Your task to perform on an android device: Search for Italian restaurants on Maps Image 0: 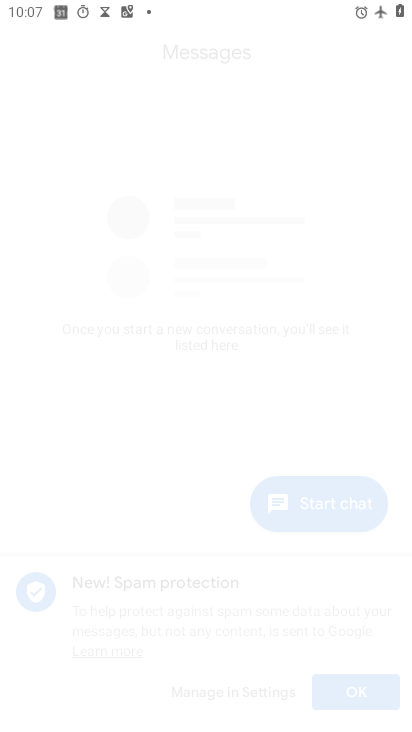
Step 0: drag from (260, 573) to (327, 62)
Your task to perform on an android device: Search for Italian restaurants on Maps Image 1: 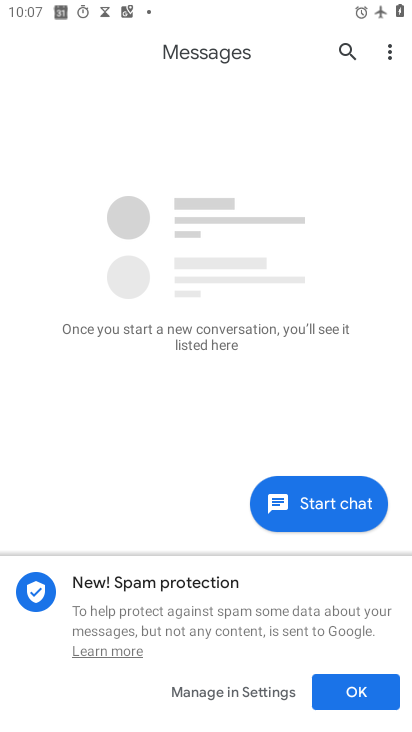
Step 1: press home button
Your task to perform on an android device: Search for Italian restaurants on Maps Image 2: 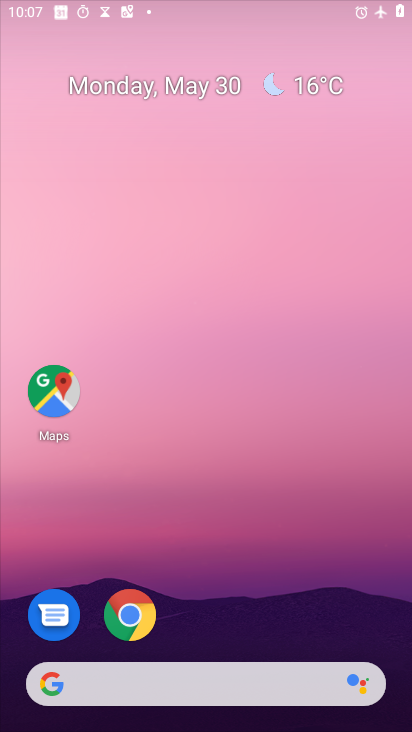
Step 2: drag from (278, 545) to (224, 29)
Your task to perform on an android device: Search for Italian restaurants on Maps Image 3: 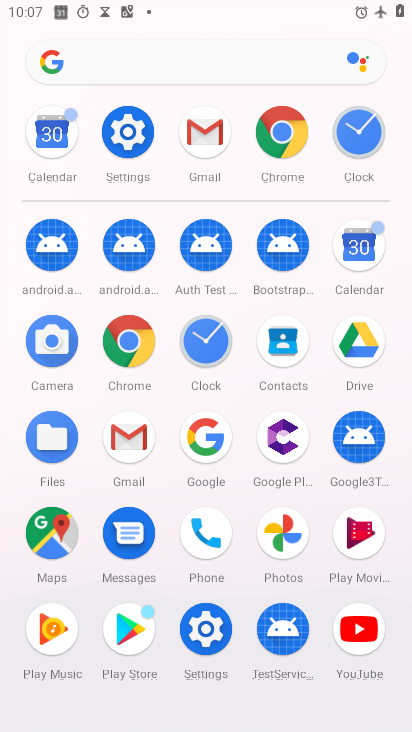
Step 3: click (59, 541)
Your task to perform on an android device: Search for Italian restaurants on Maps Image 4: 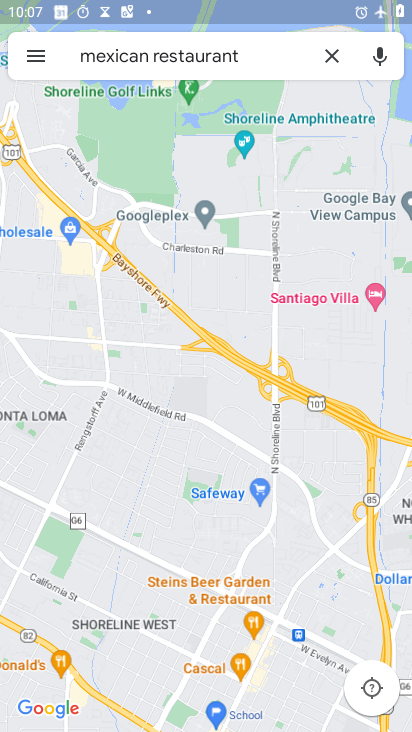
Step 4: click (336, 49)
Your task to perform on an android device: Search for Italian restaurants on Maps Image 5: 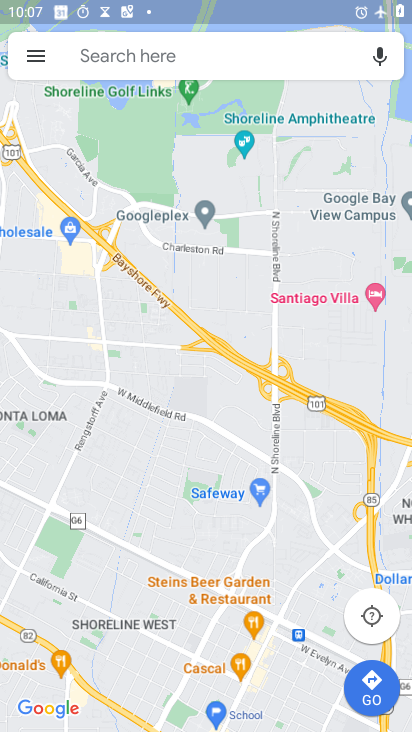
Step 5: click (175, 57)
Your task to perform on an android device: Search for Italian restaurants on Maps Image 6: 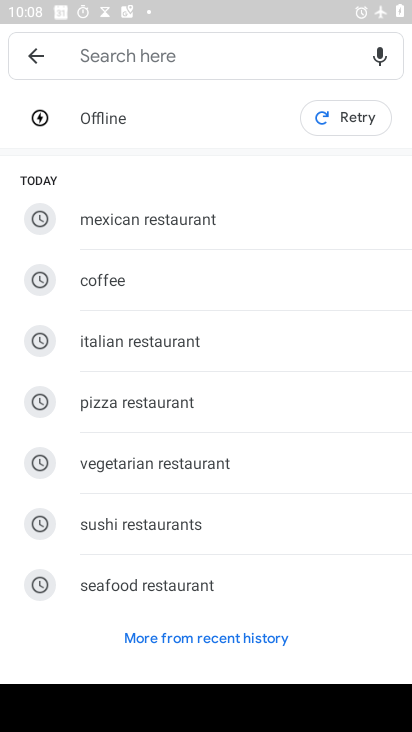
Step 6: click (227, 344)
Your task to perform on an android device: Search for Italian restaurants on Maps Image 7: 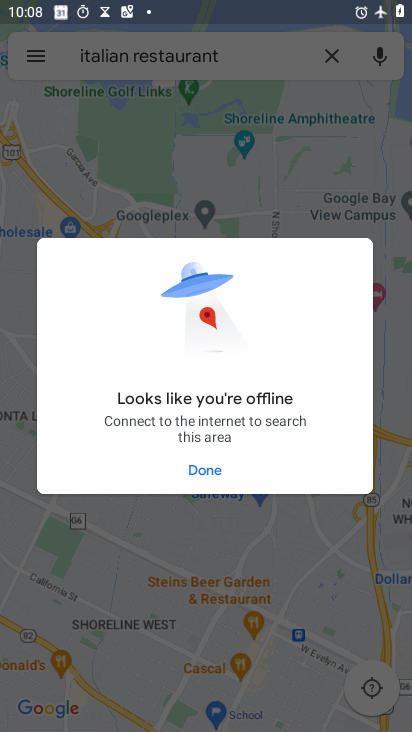
Step 7: task complete